Your task to perform on an android device: Go to location settings Image 0: 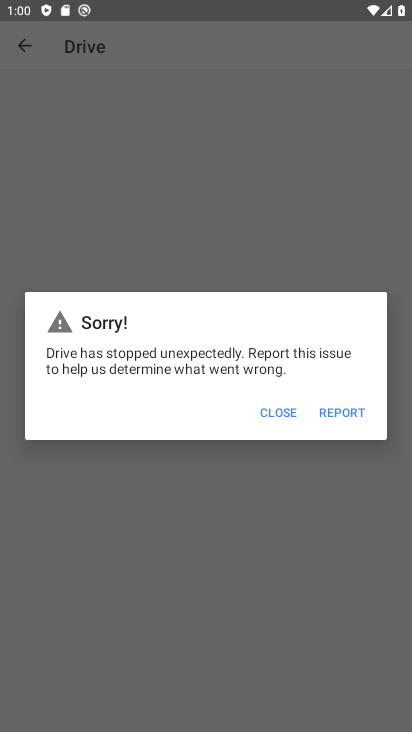
Step 0: press home button
Your task to perform on an android device: Go to location settings Image 1: 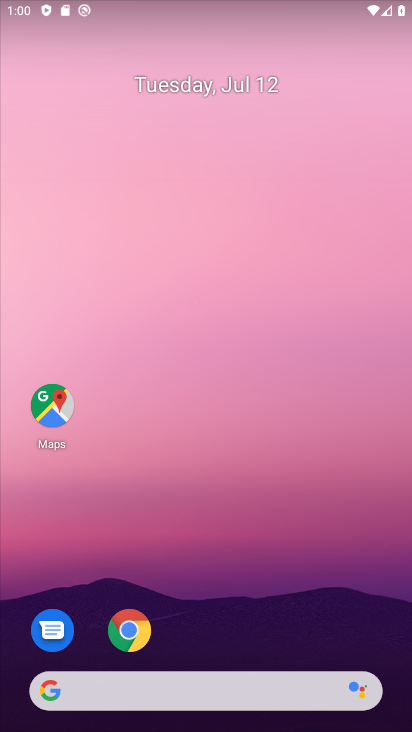
Step 1: drag from (225, 658) to (39, 729)
Your task to perform on an android device: Go to location settings Image 2: 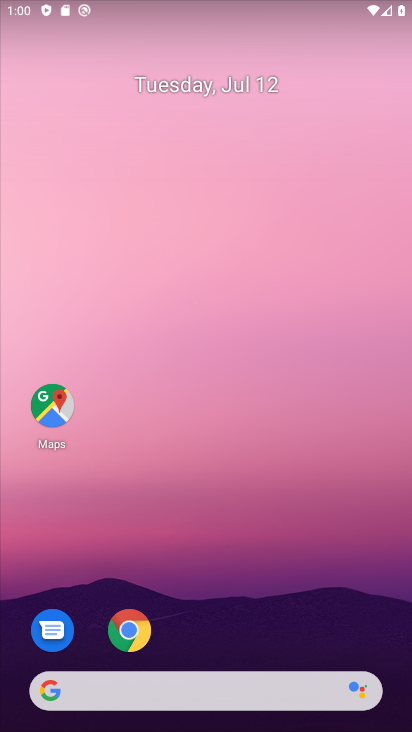
Step 2: drag from (210, 643) to (167, 79)
Your task to perform on an android device: Go to location settings Image 3: 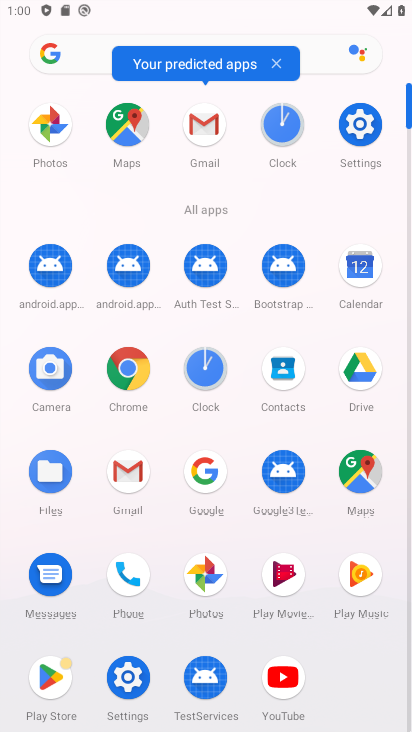
Step 3: click (349, 121)
Your task to perform on an android device: Go to location settings Image 4: 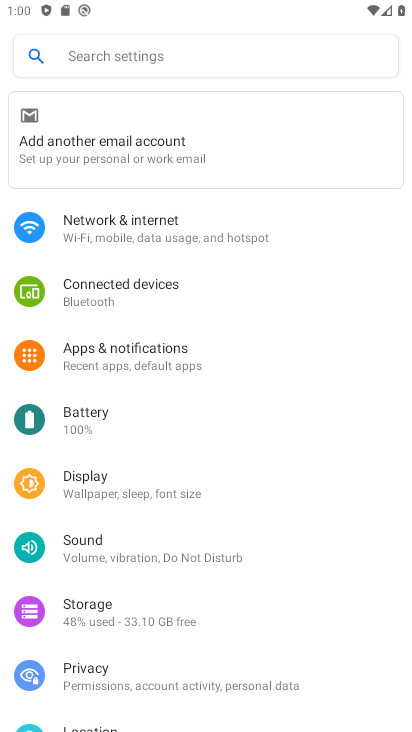
Step 4: drag from (76, 636) to (47, 397)
Your task to perform on an android device: Go to location settings Image 5: 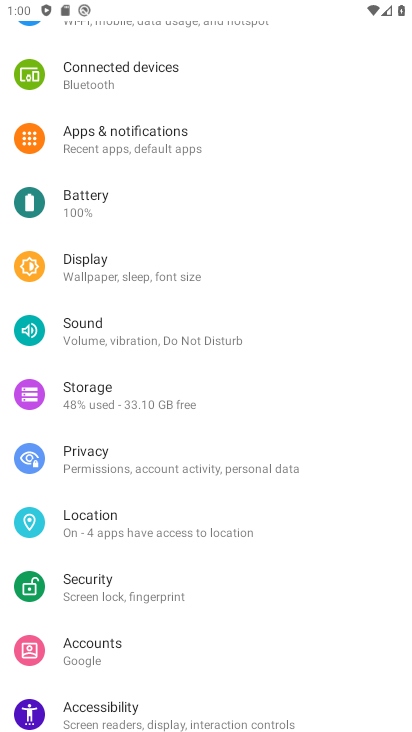
Step 5: click (65, 532)
Your task to perform on an android device: Go to location settings Image 6: 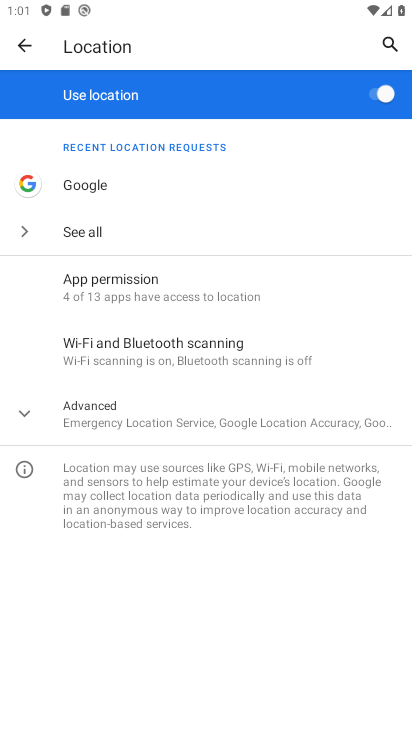
Step 6: click (177, 405)
Your task to perform on an android device: Go to location settings Image 7: 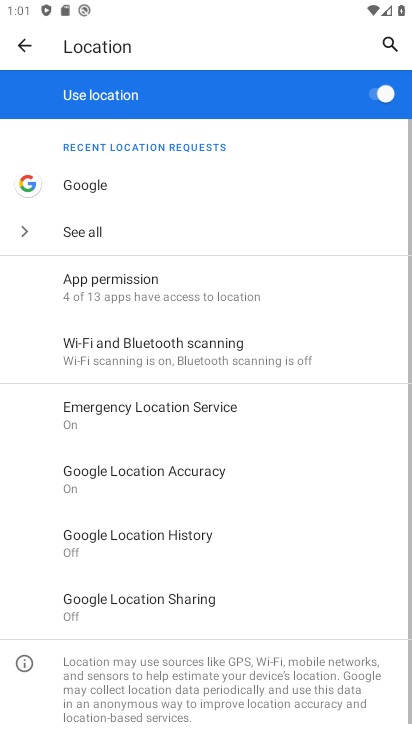
Step 7: task complete